Your task to perform on an android device: Search for vegetarian restaurants on Maps Image 0: 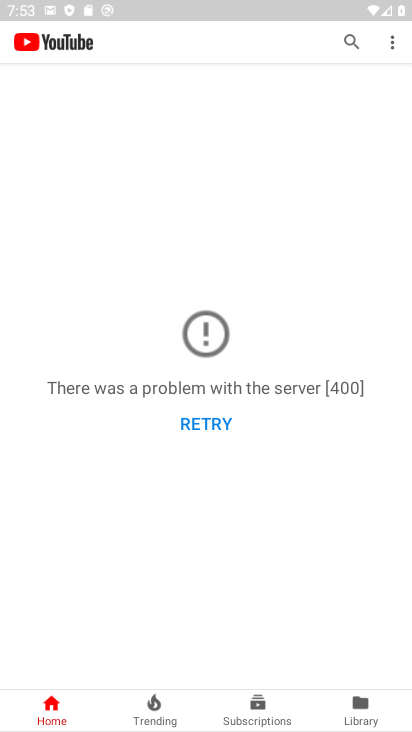
Step 0: press back button
Your task to perform on an android device: Search for vegetarian restaurants on Maps Image 1: 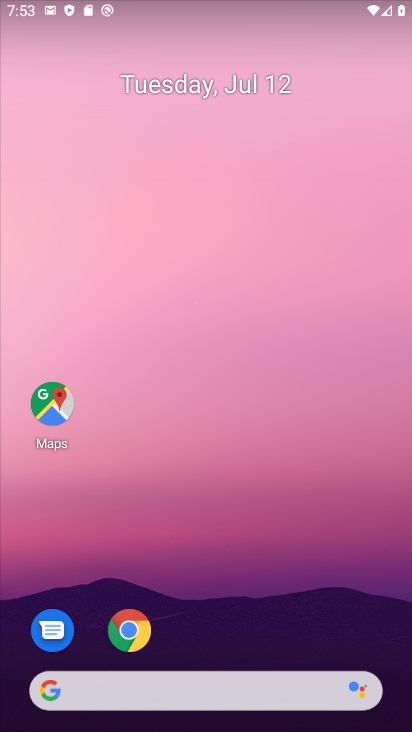
Step 1: click (55, 416)
Your task to perform on an android device: Search for vegetarian restaurants on Maps Image 2: 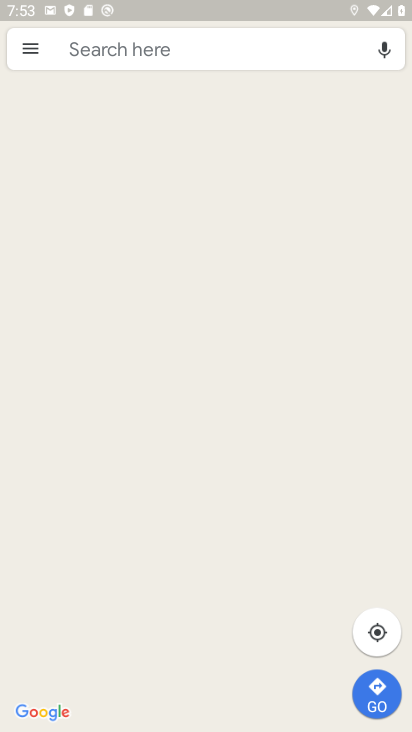
Step 2: click (120, 54)
Your task to perform on an android device: Search for vegetarian restaurants on Maps Image 3: 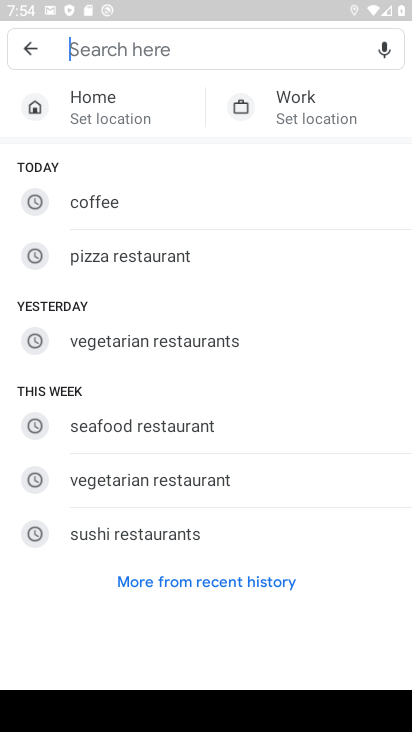
Step 3: click (172, 487)
Your task to perform on an android device: Search for vegetarian restaurants on Maps Image 4: 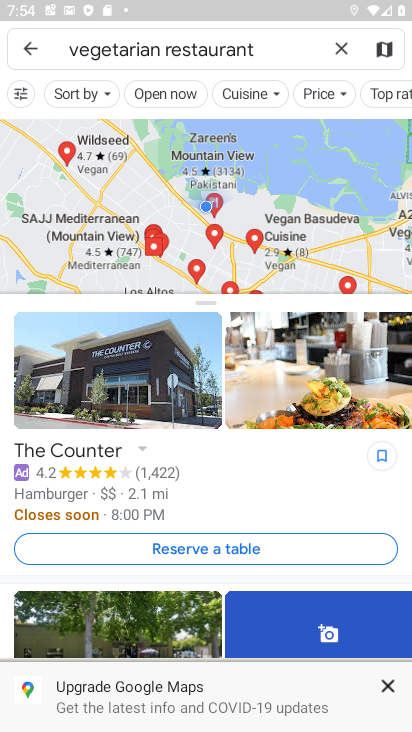
Step 4: task complete